Your task to perform on an android device: Go to Wikipedia Image 0: 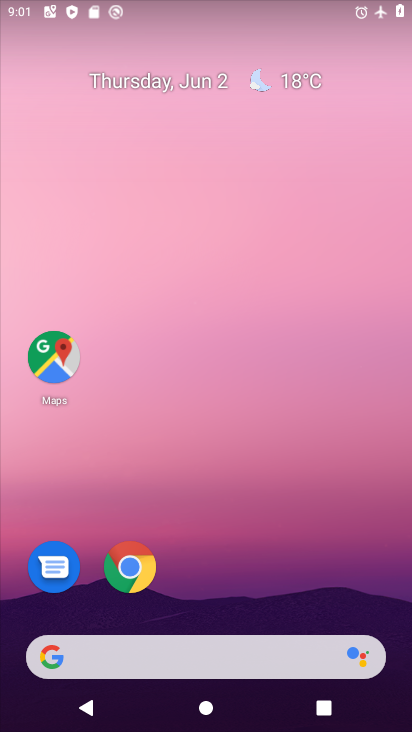
Step 0: drag from (234, 623) to (230, 579)
Your task to perform on an android device: Go to Wikipedia Image 1: 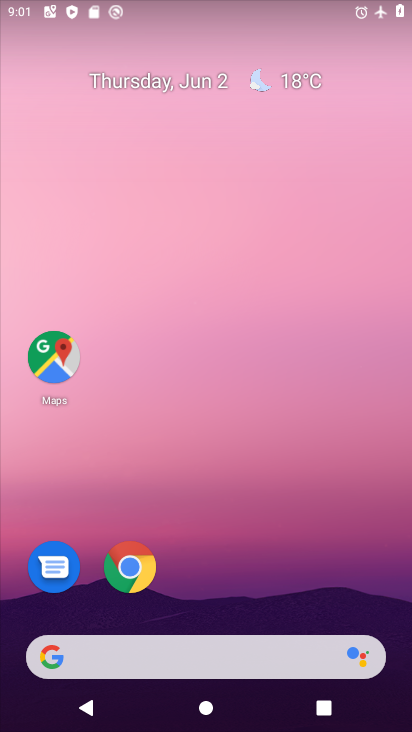
Step 1: click (136, 579)
Your task to perform on an android device: Go to Wikipedia Image 2: 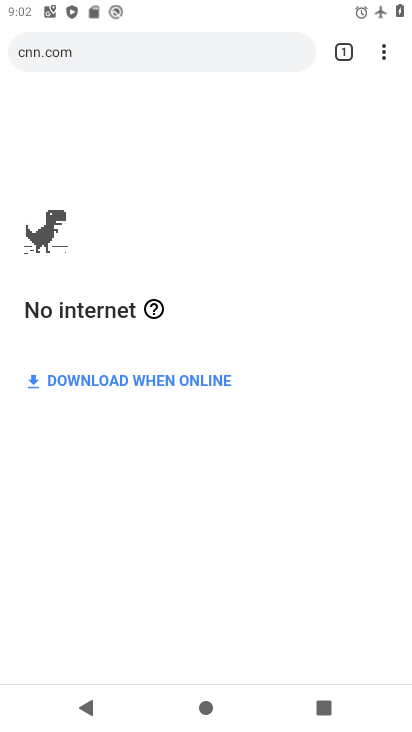
Step 2: click (166, 46)
Your task to perform on an android device: Go to Wikipedia Image 3: 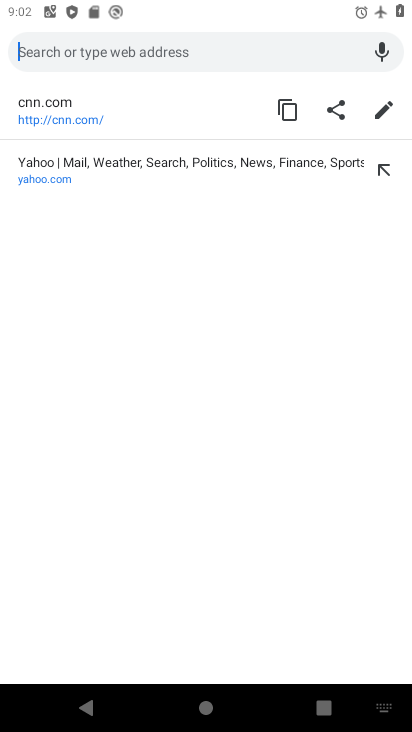
Step 3: type "wikipedia"
Your task to perform on an android device: Go to Wikipedia Image 4: 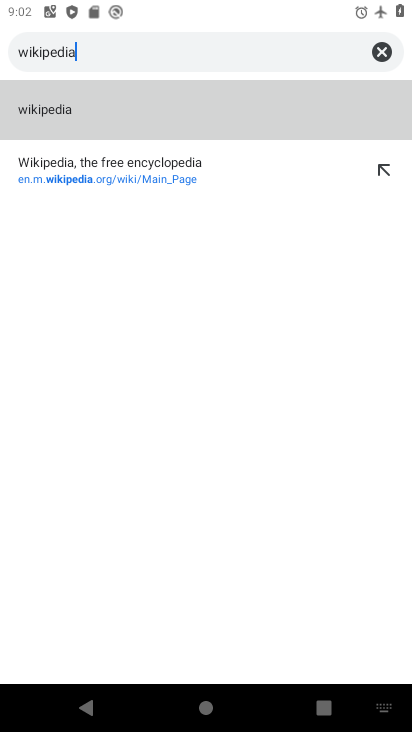
Step 4: click (81, 125)
Your task to perform on an android device: Go to Wikipedia Image 5: 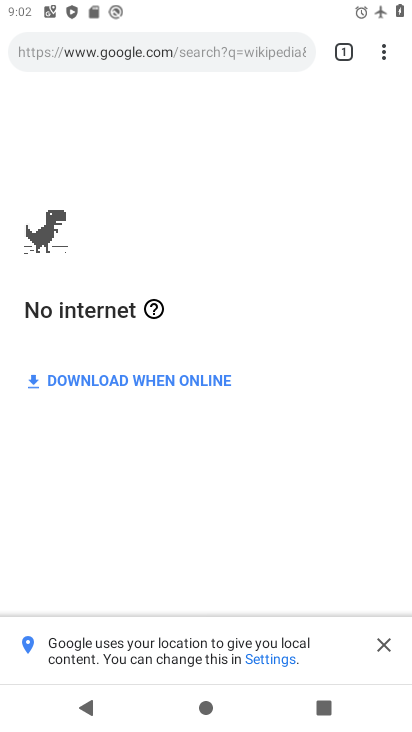
Step 5: task complete